Your task to perform on an android device: Go to Google Image 0: 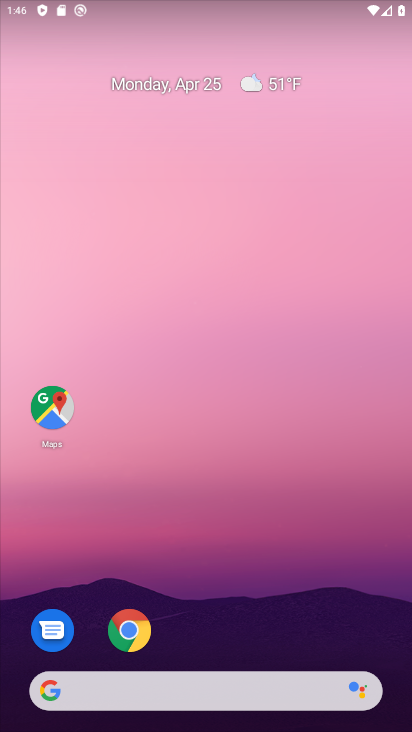
Step 0: drag from (291, 615) to (240, 64)
Your task to perform on an android device: Go to Google Image 1: 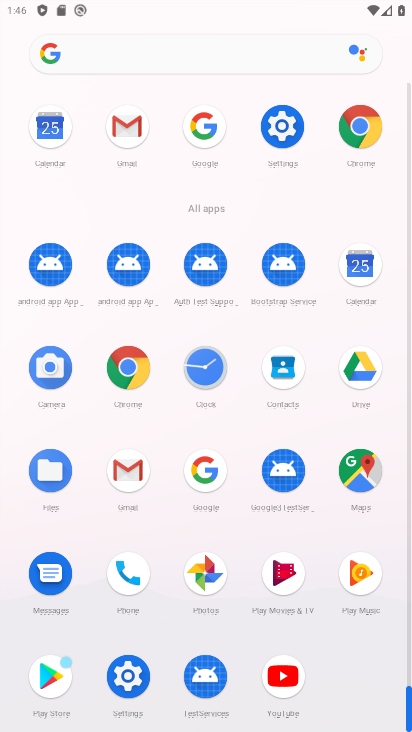
Step 1: click (208, 477)
Your task to perform on an android device: Go to Google Image 2: 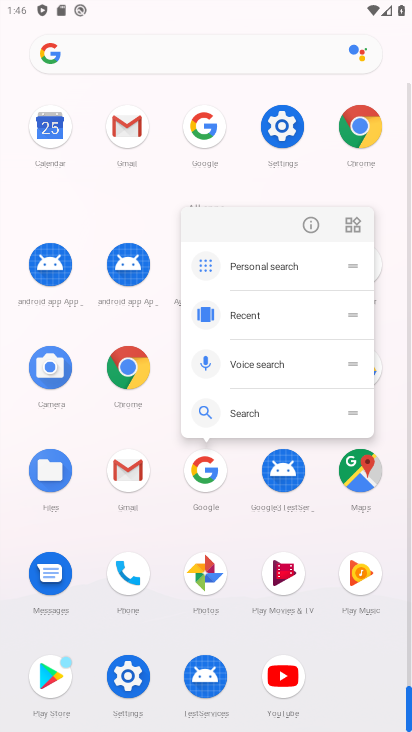
Step 2: click (208, 476)
Your task to perform on an android device: Go to Google Image 3: 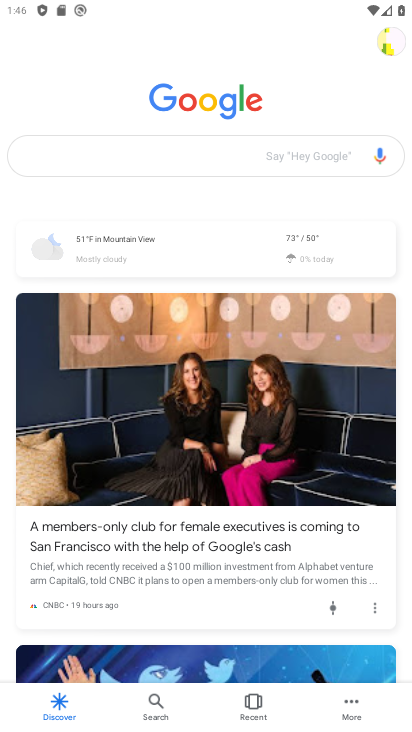
Step 3: task complete